Your task to perform on an android device: Go to sound settings Image 0: 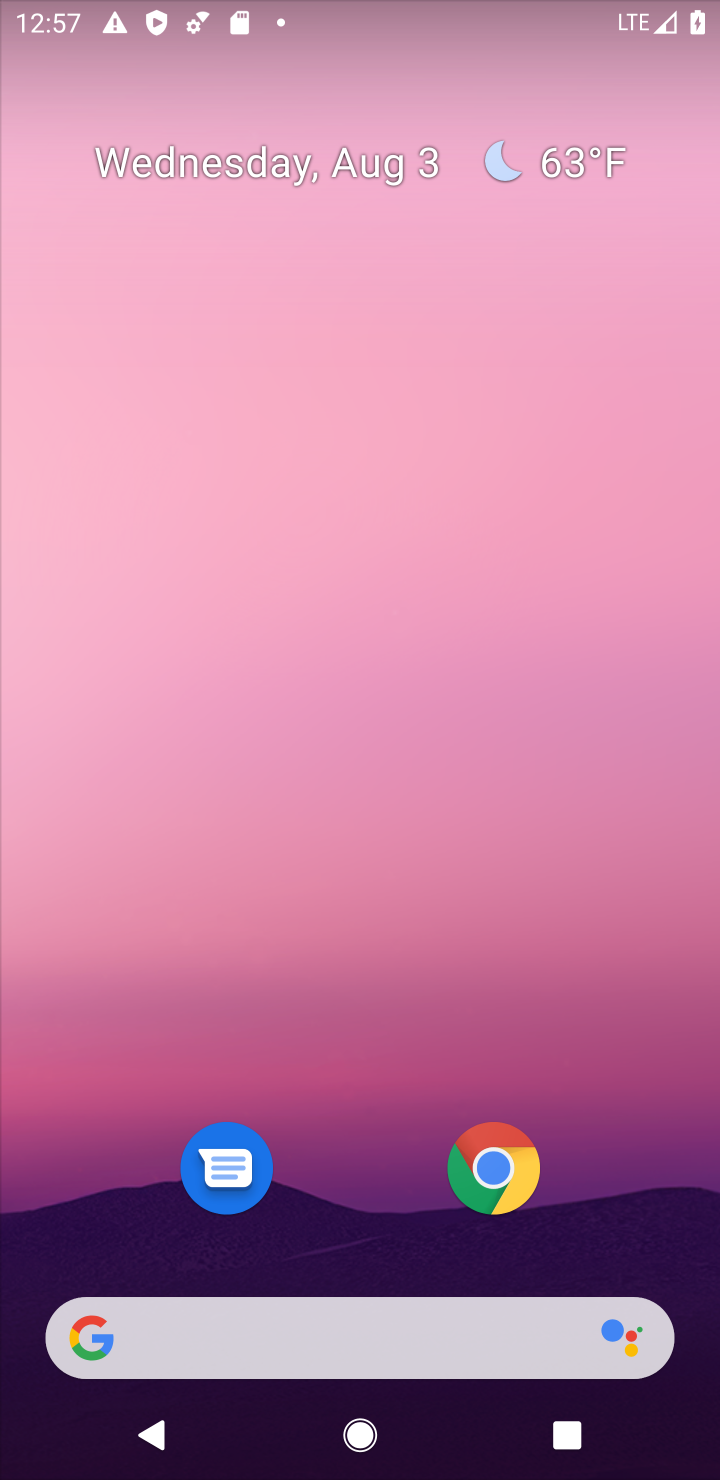
Step 0: click (526, 263)
Your task to perform on an android device: Go to sound settings Image 1: 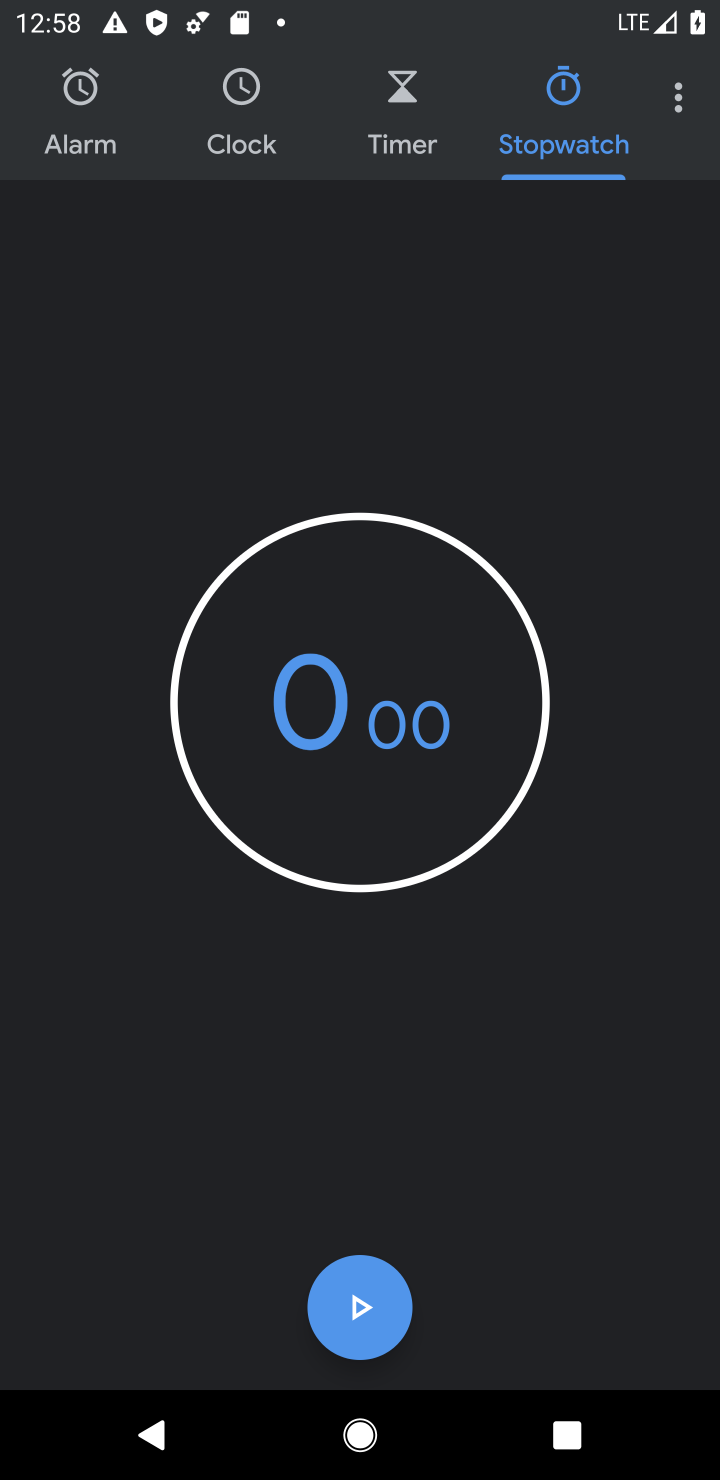
Step 1: press home button
Your task to perform on an android device: Go to sound settings Image 2: 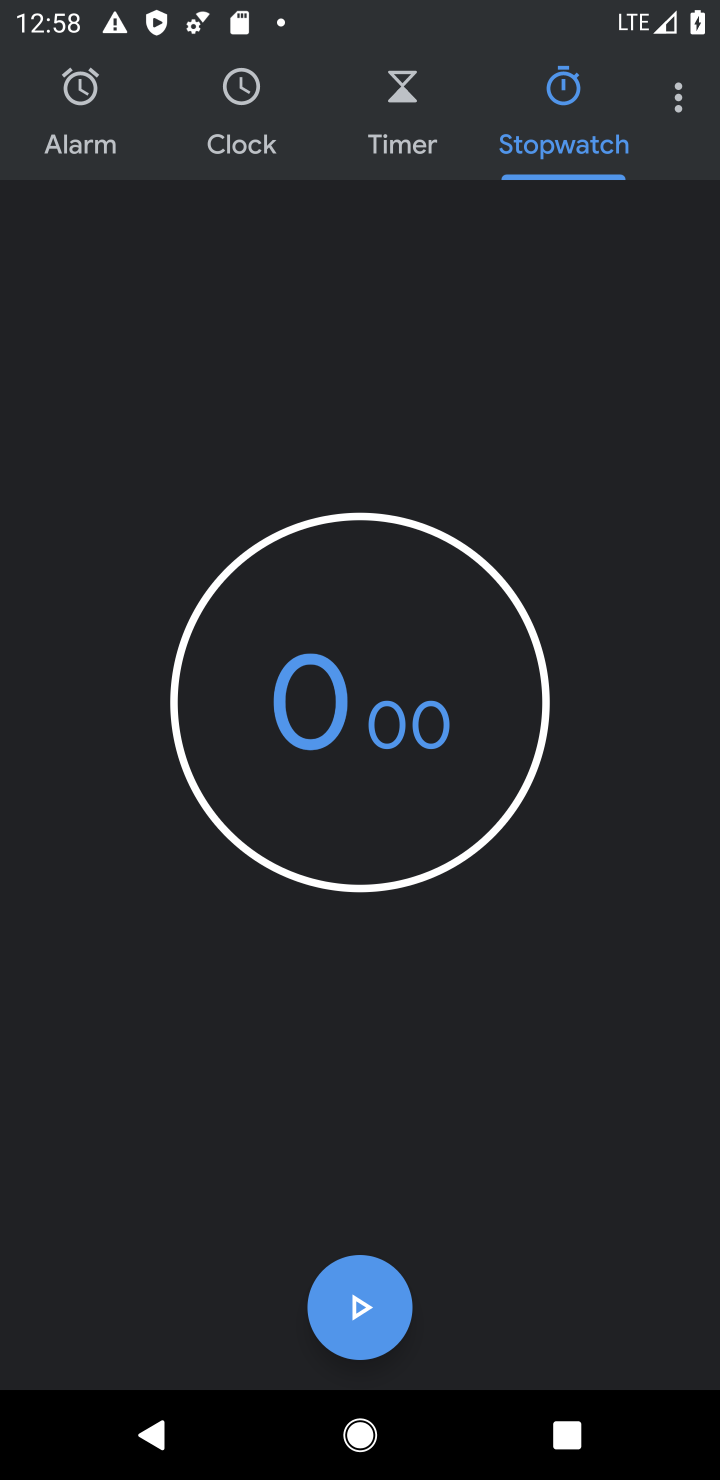
Step 2: drag from (607, 1110) to (478, 61)
Your task to perform on an android device: Go to sound settings Image 3: 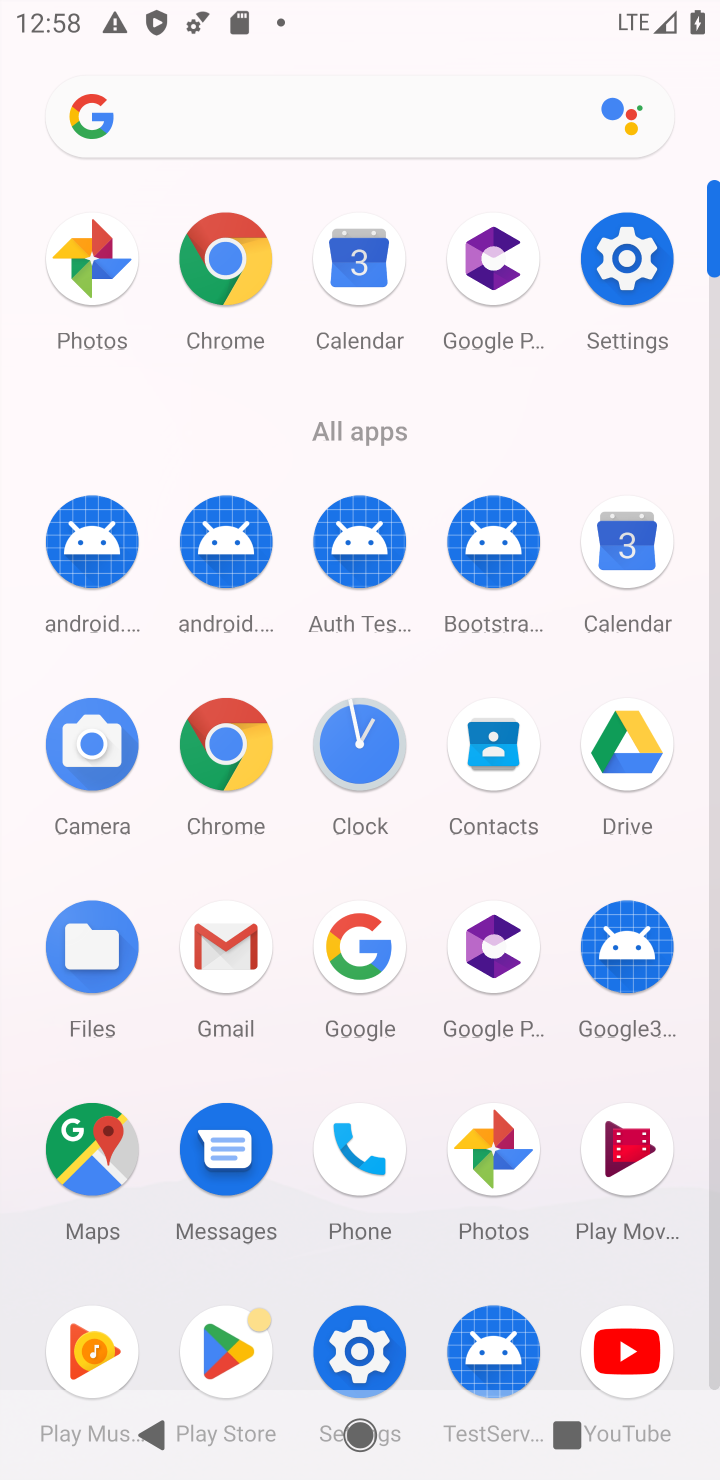
Step 3: click (640, 213)
Your task to perform on an android device: Go to sound settings Image 4: 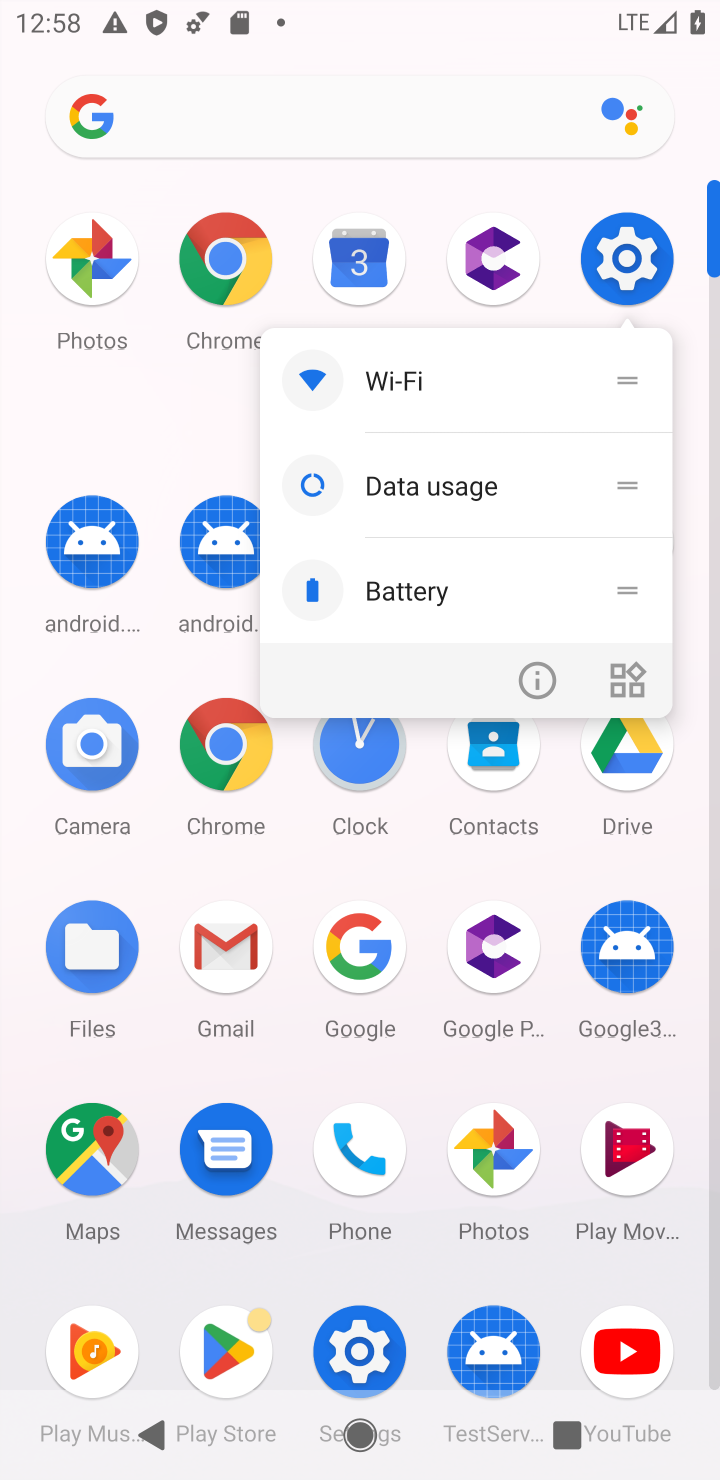
Step 4: click (637, 272)
Your task to perform on an android device: Go to sound settings Image 5: 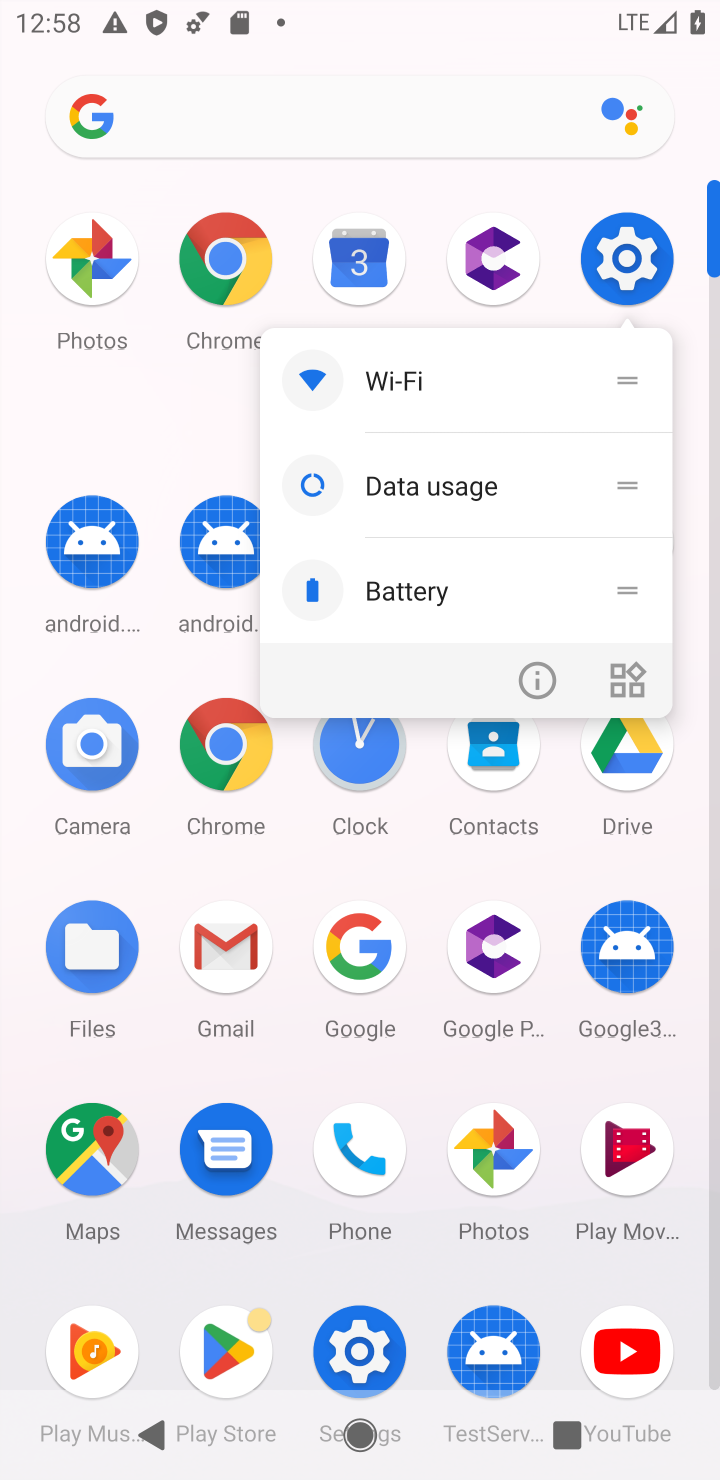
Step 5: click (637, 272)
Your task to perform on an android device: Go to sound settings Image 6: 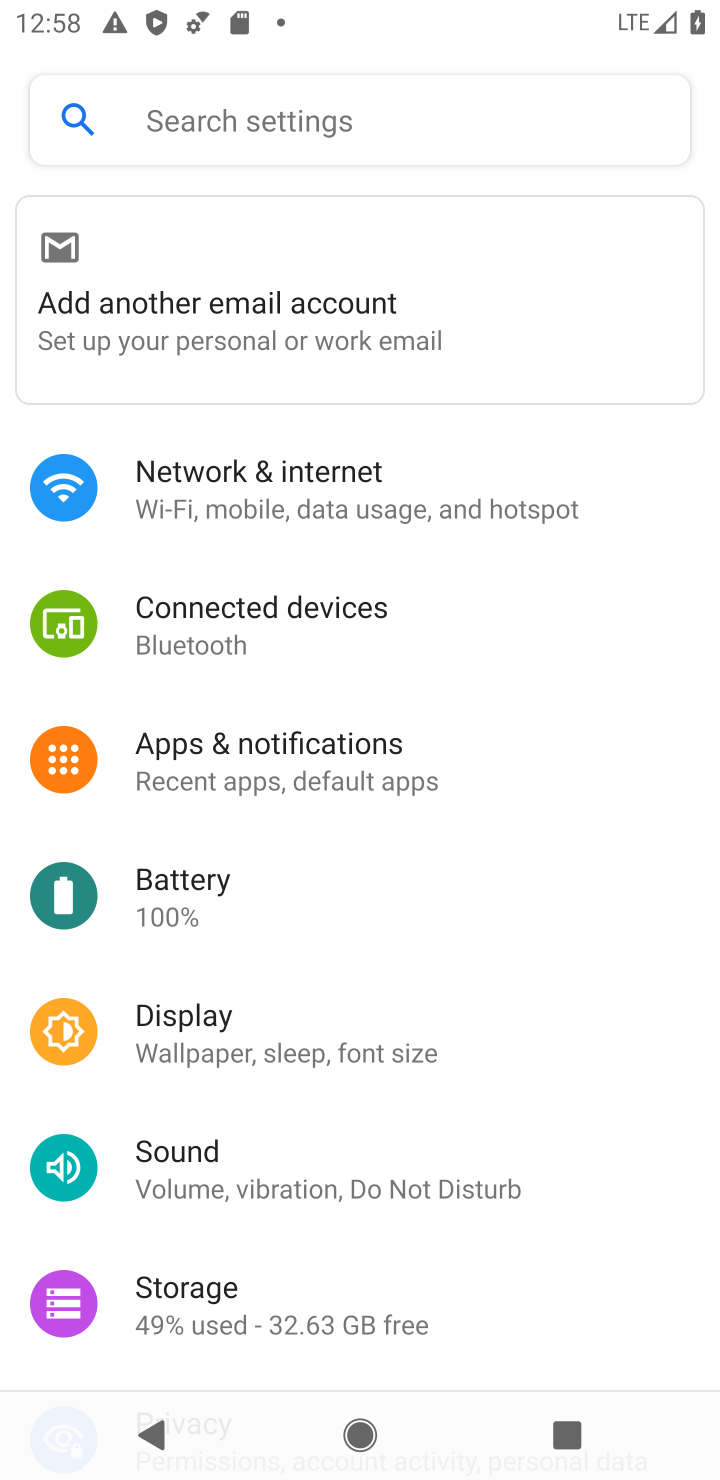
Step 6: click (259, 1193)
Your task to perform on an android device: Go to sound settings Image 7: 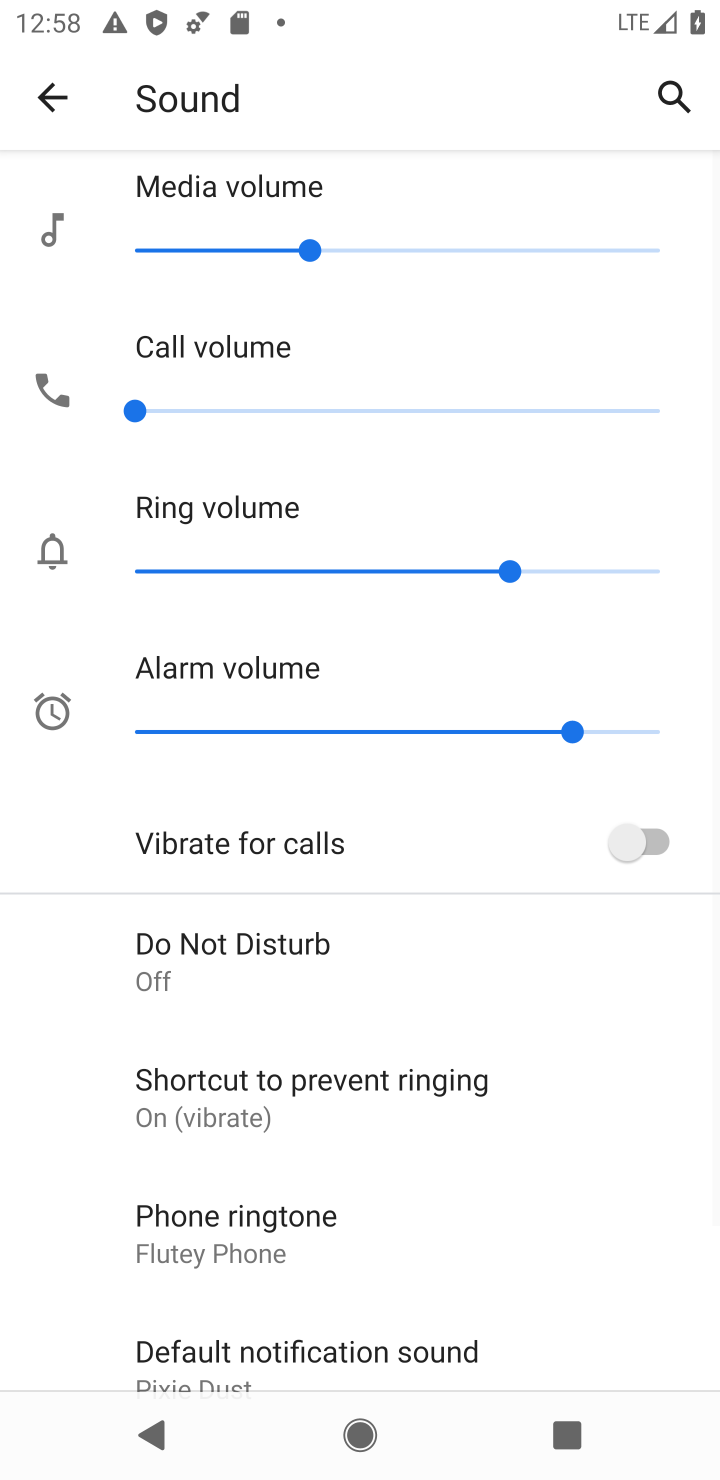
Step 7: task complete